Your task to perform on an android device: Open settings on Google Maps Image 0: 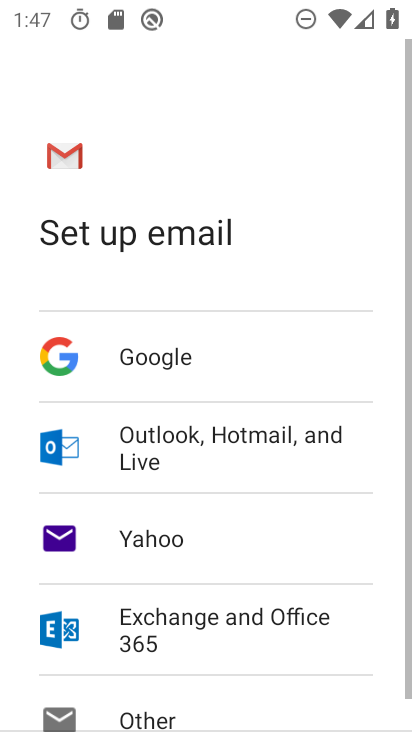
Step 0: press home button
Your task to perform on an android device: Open settings on Google Maps Image 1: 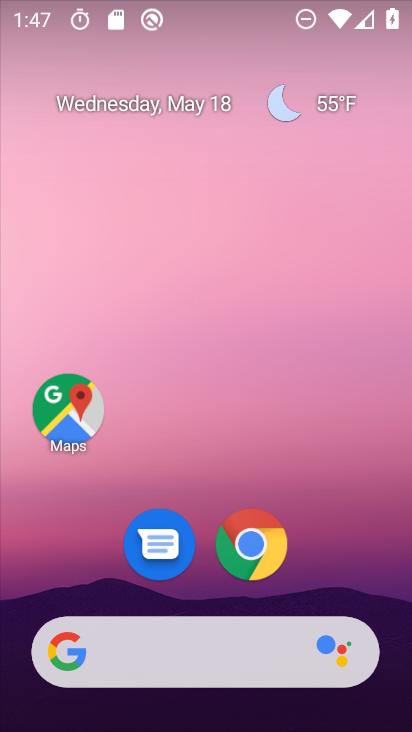
Step 1: click (70, 400)
Your task to perform on an android device: Open settings on Google Maps Image 2: 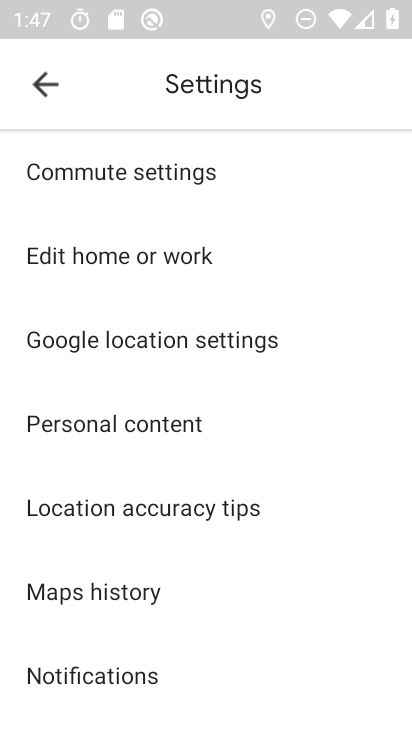
Step 2: task complete